Your task to perform on an android device: open app "Walmart Shopping & Grocery" Image 0: 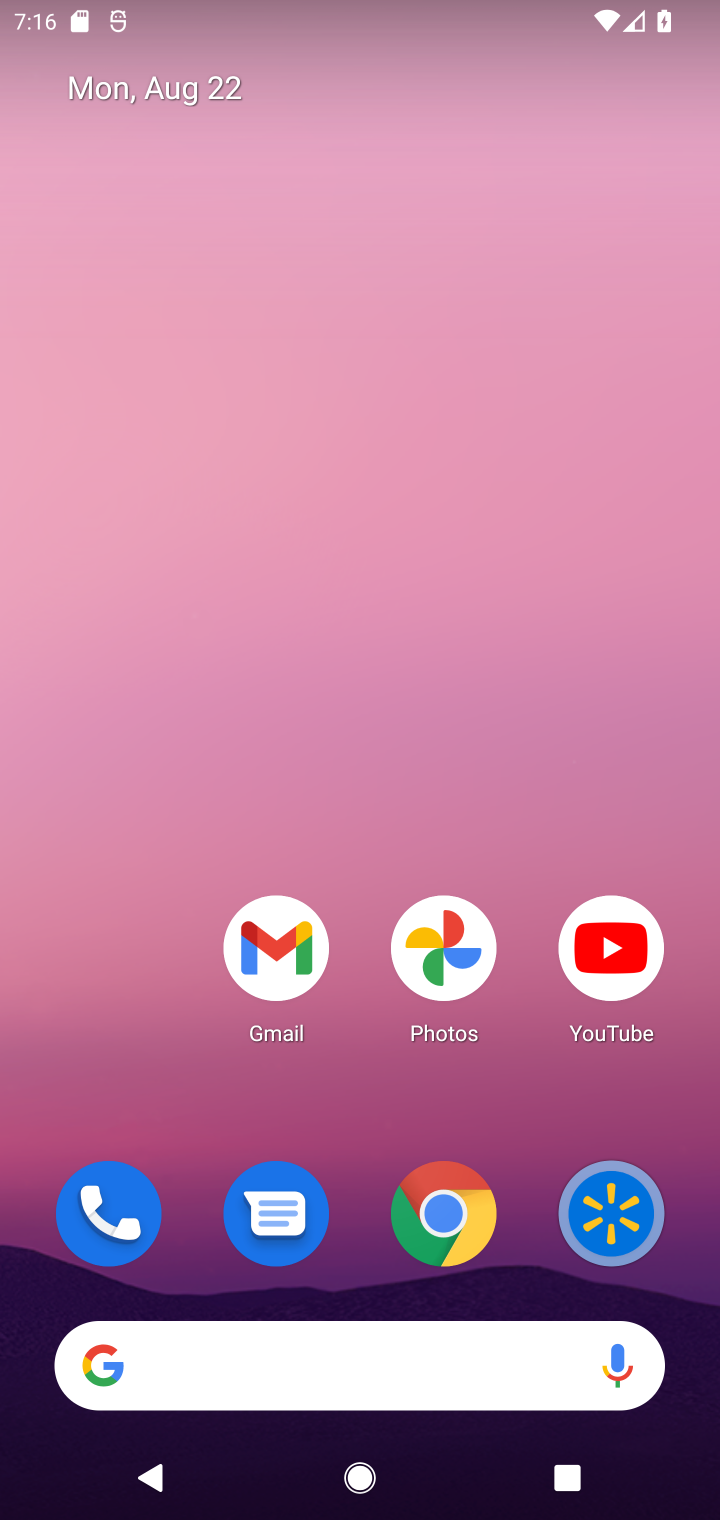
Step 0: press home button
Your task to perform on an android device: open app "Walmart Shopping & Grocery" Image 1: 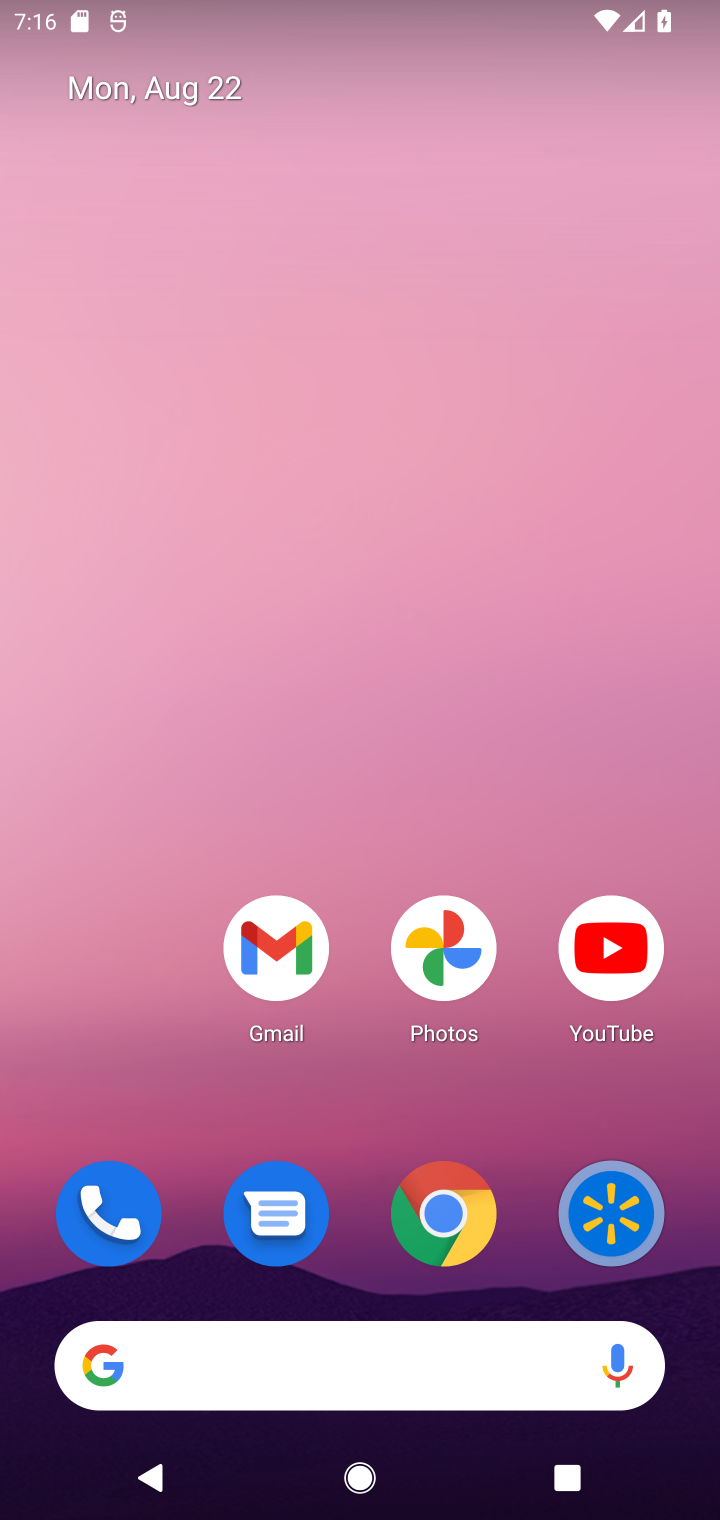
Step 1: drag from (363, 1180) to (468, 60)
Your task to perform on an android device: open app "Walmart Shopping & Grocery" Image 2: 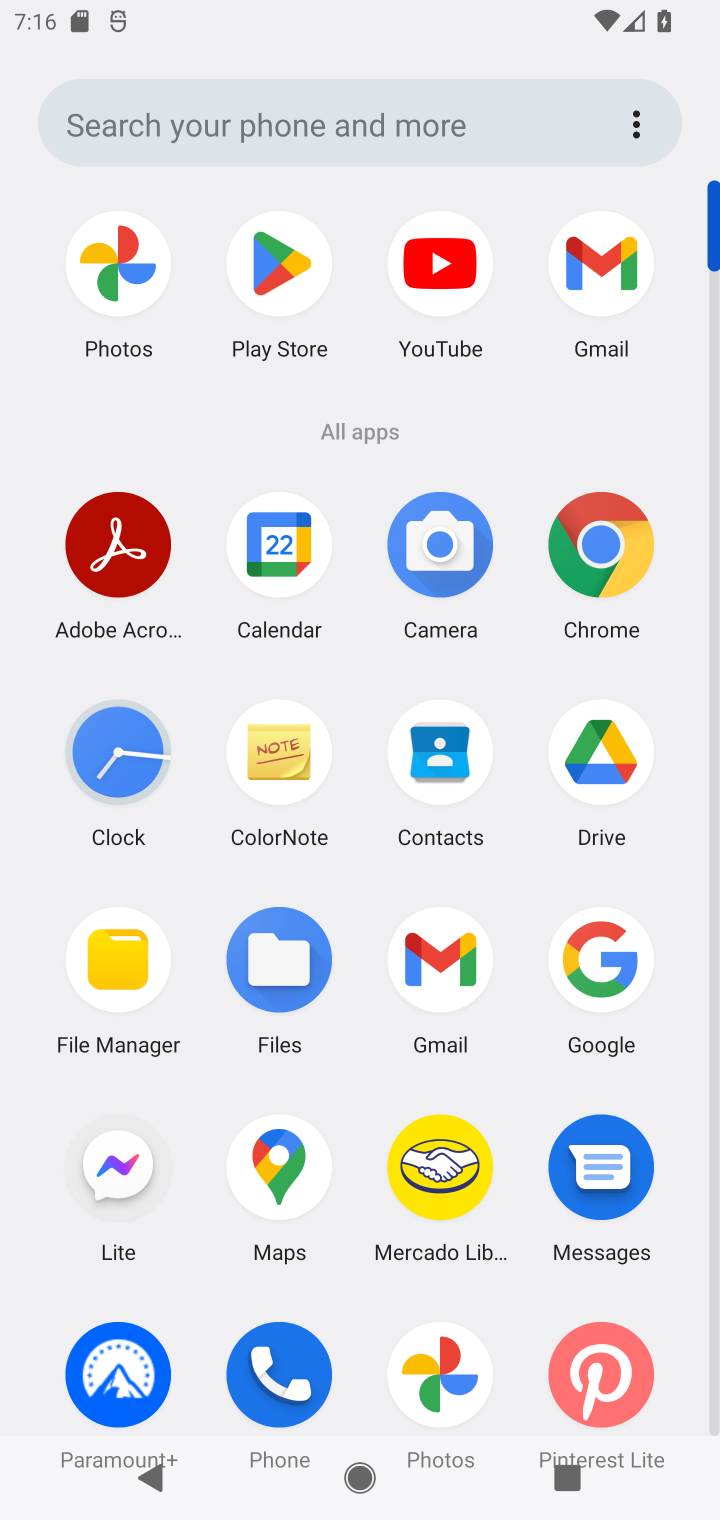
Step 2: drag from (354, 1296) to (405, 379)
Your task to perform on an android device: open app "Walmart Shopping & Grocery" Image 3: 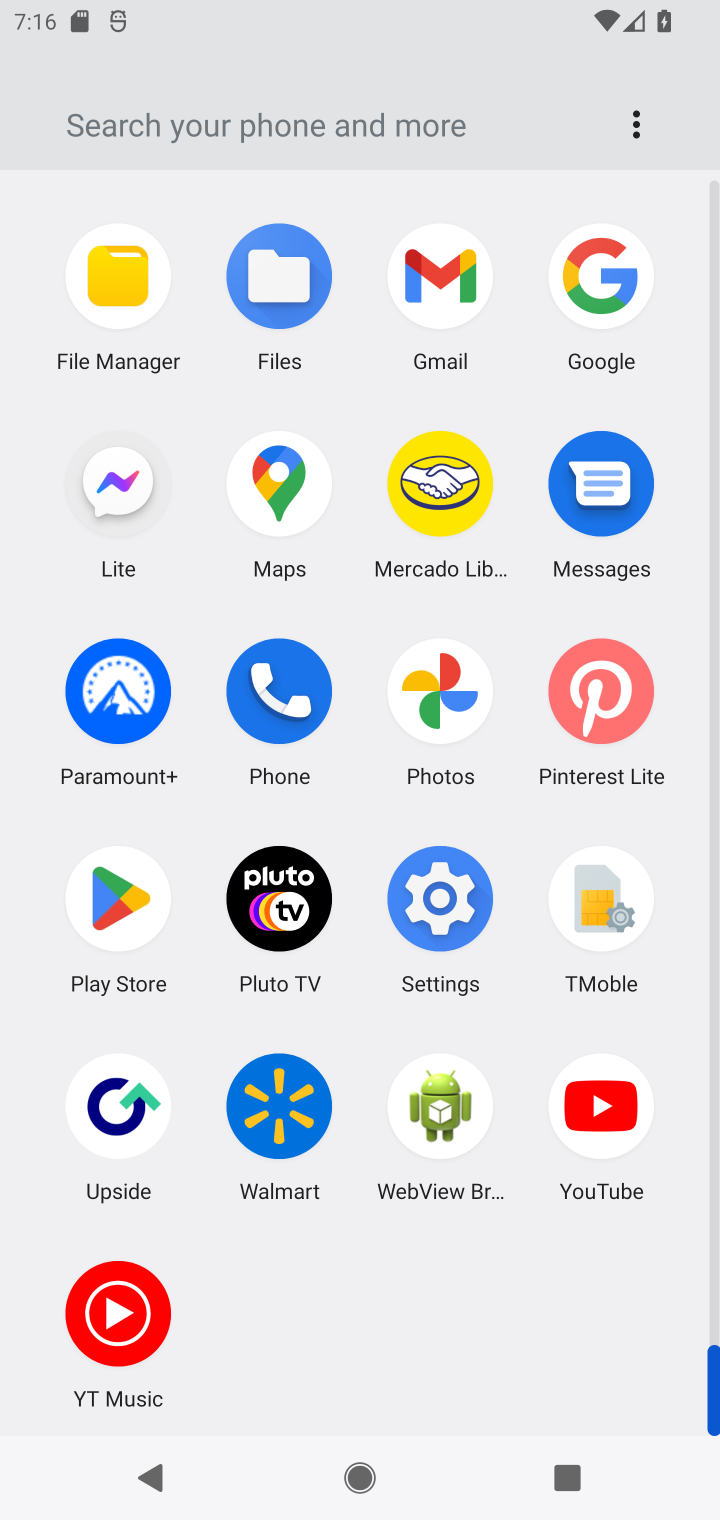
Step 3: click (109, 885)
Your task to perform on an android device: open app "Walmart Shopping & Grocery" Image 4: 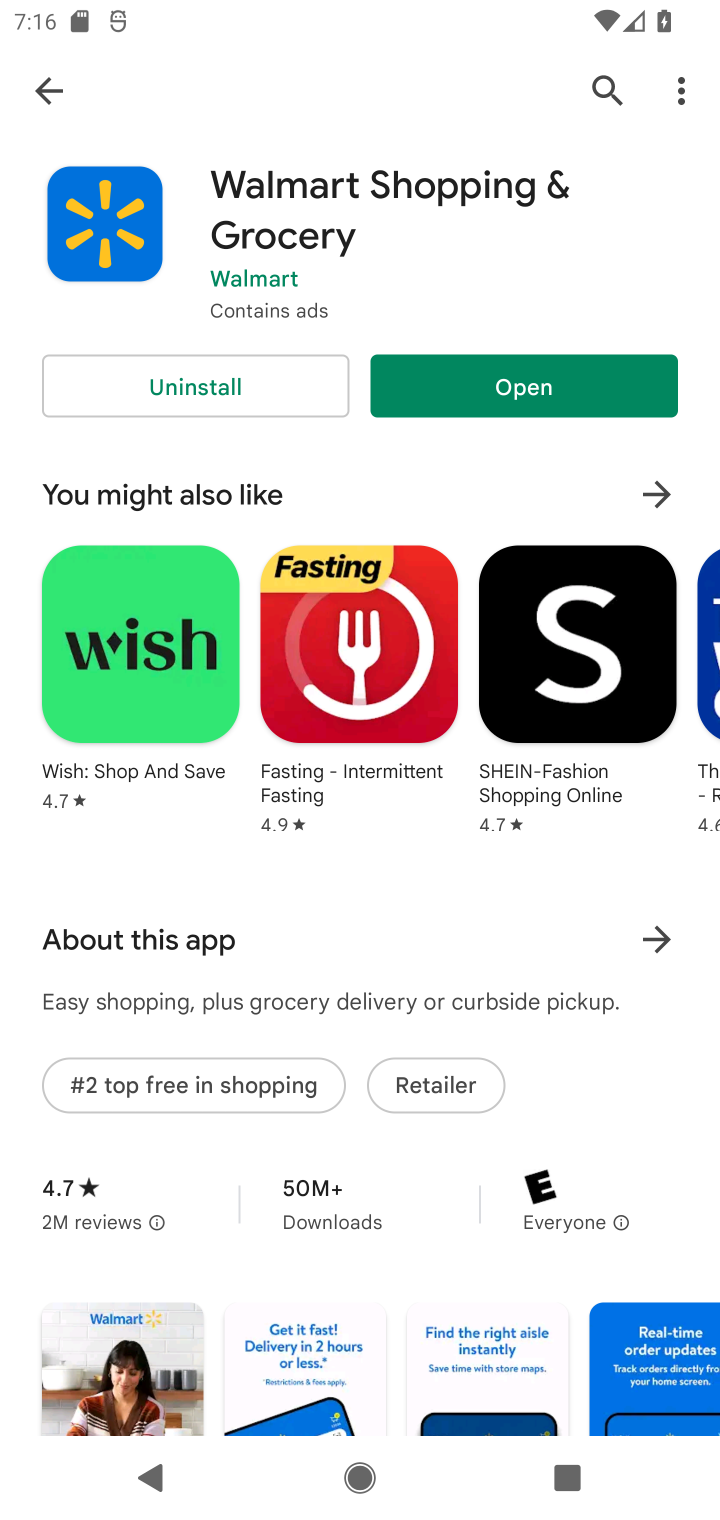
Step 4: click (597, 95)
Your task to perform on an android device: open app "Walmart Shopping & Grocery" Image 5: 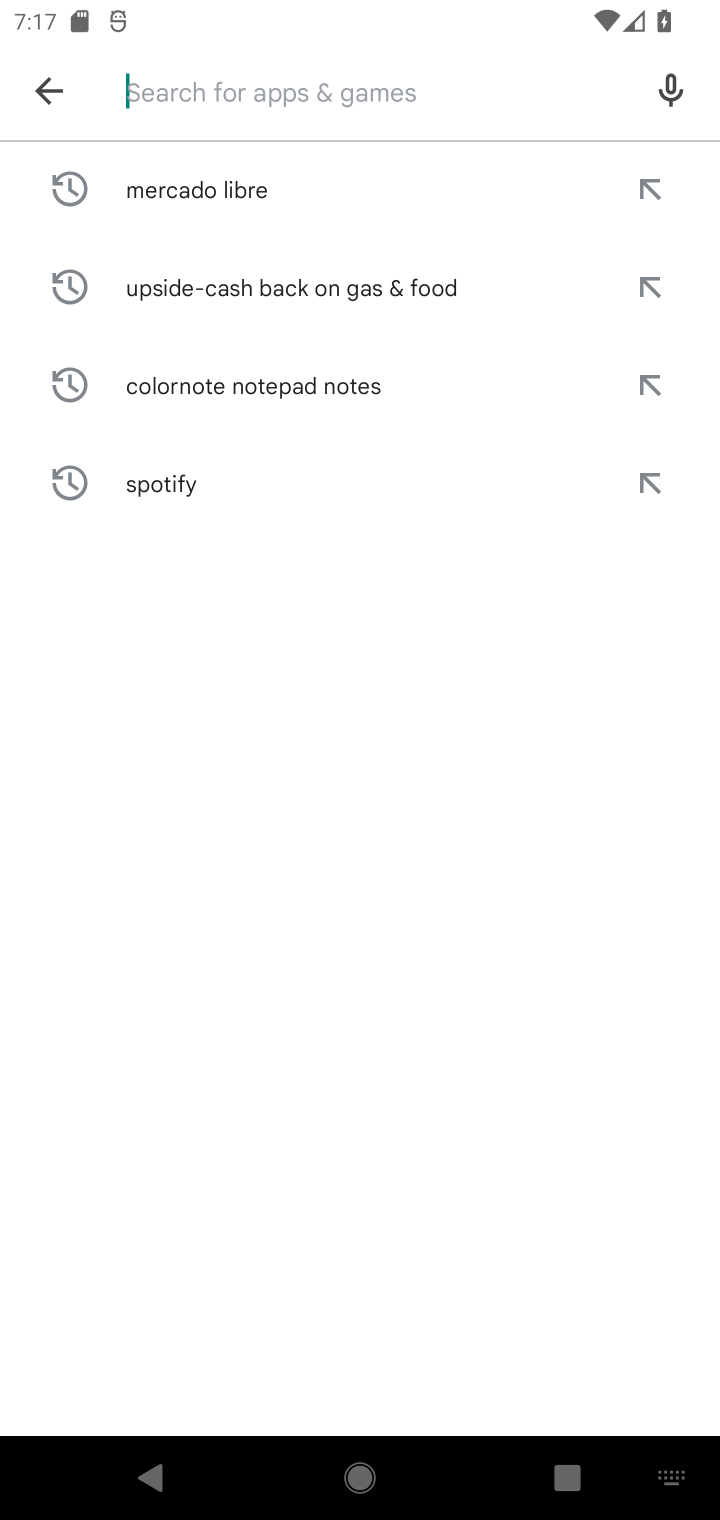
Step 5: type "Walmart Shopping & Grocery"
Your task to perform on an android device: open app "Walmart Shopping & Grocery" Image 6: 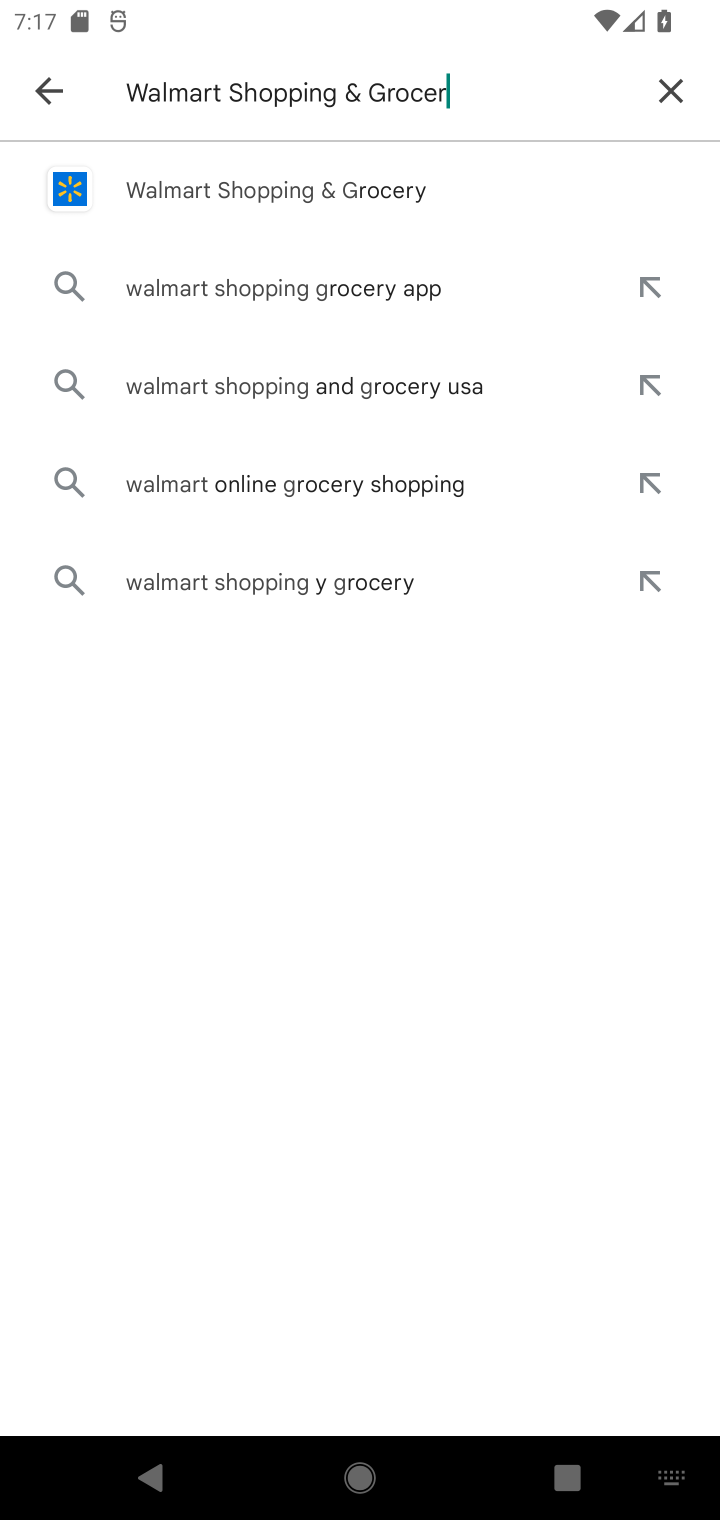
Step 6: type ""
Your task to perform on an android device: open app "Walmart Shopping & Grocery" Image 7: 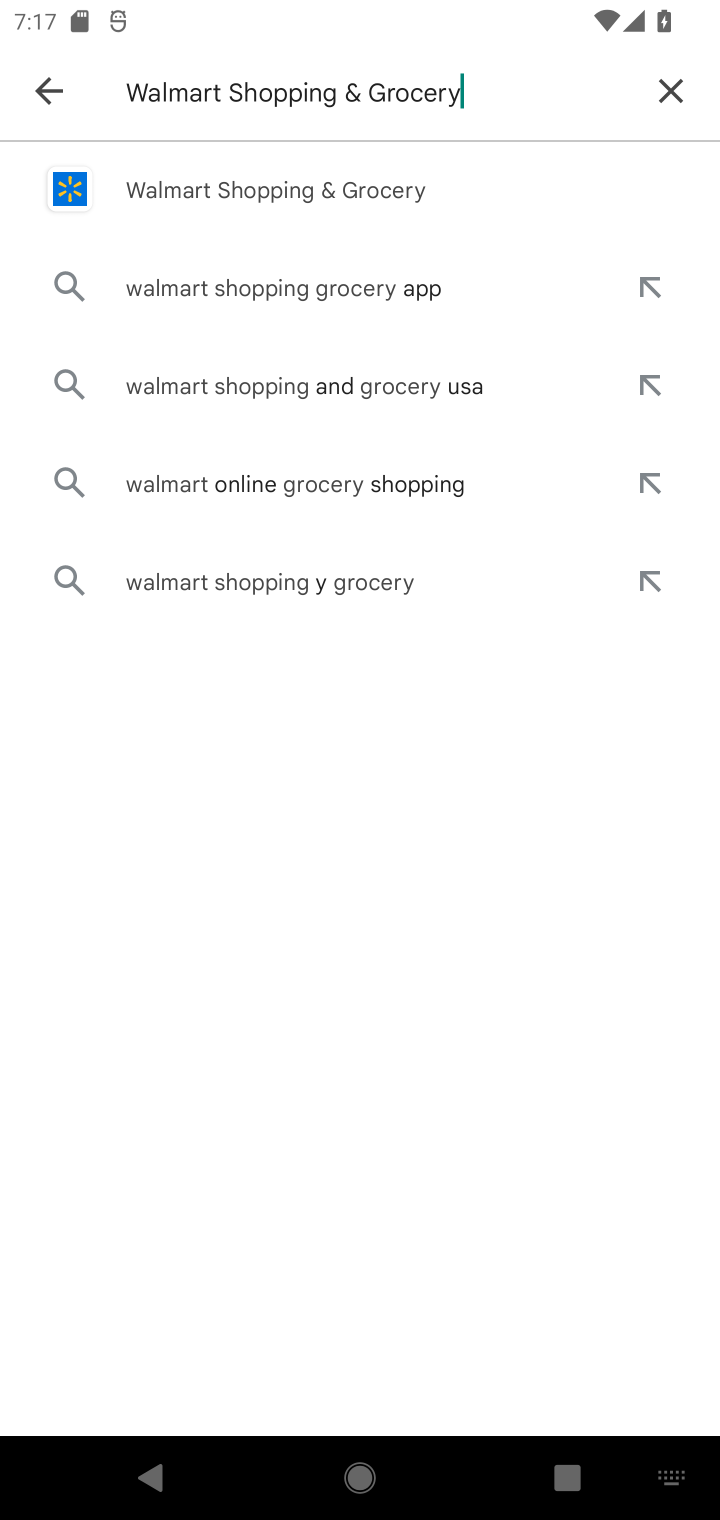
Step 7: click (438, 179)
Your task to perform on an android device: open app "Walmart Shopping & Grocery" Image 8: 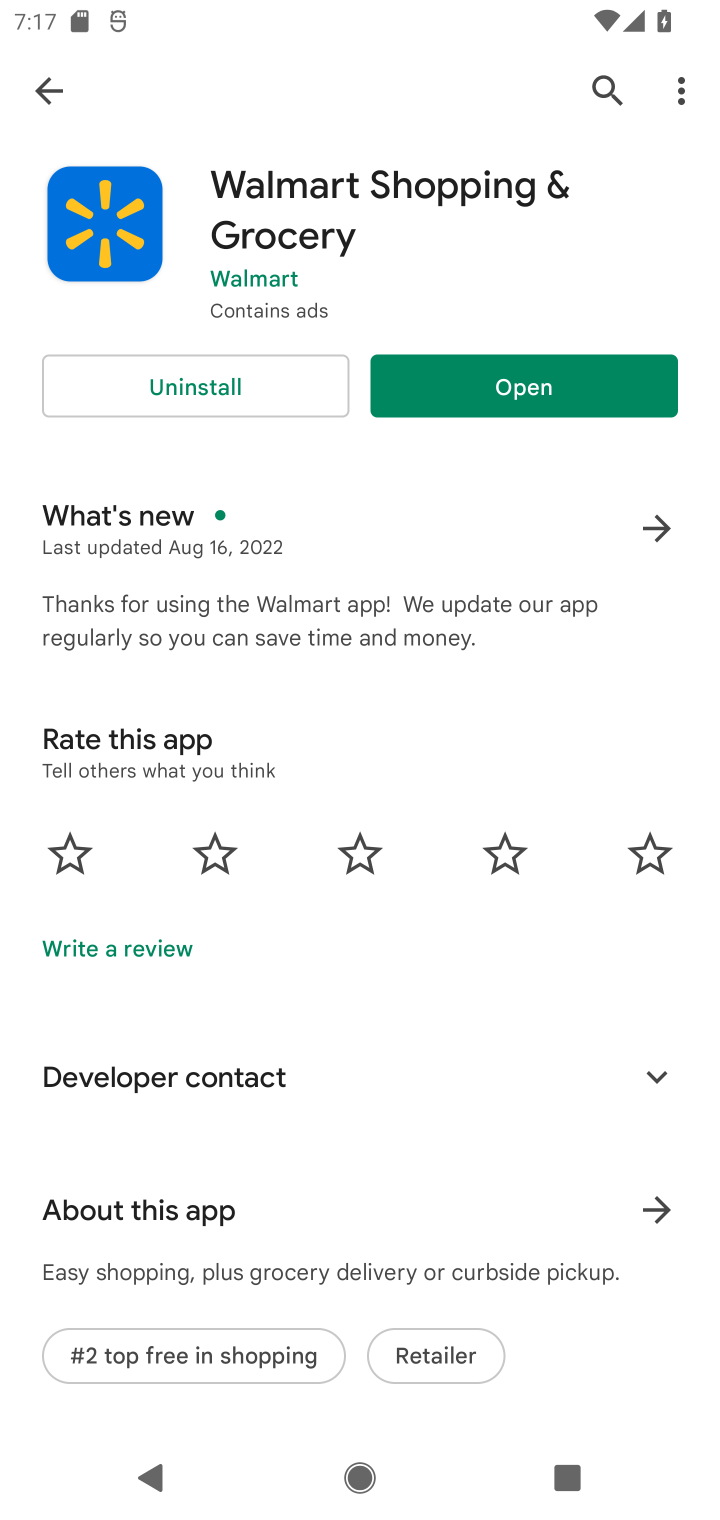
Step 8: task complete